Your task to perform on an android device: Open Amazon Image 0: 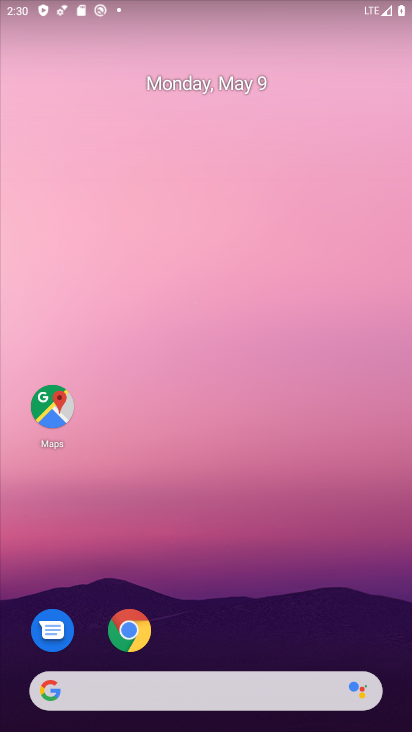
Step 0: drag from (322, 597) to (175, 125)
Your task to perform on an android device: Open Amazon Image 1: 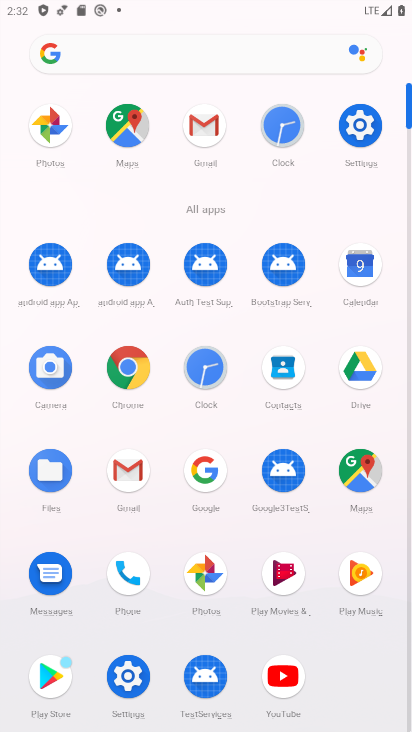
Step 1: click (136, 370)
Your task to perform on an android device: Open Amazon Image 2: 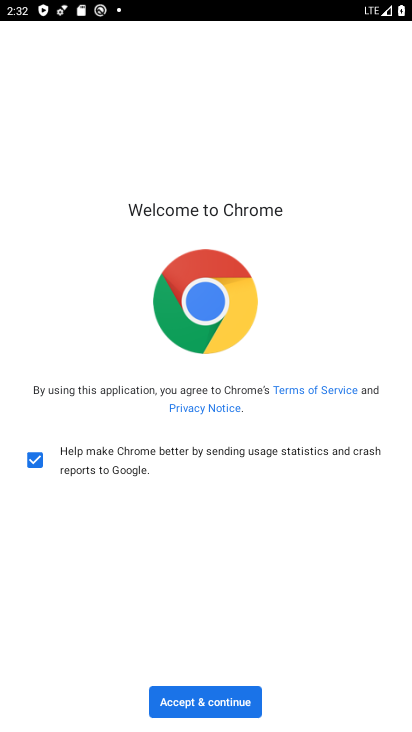
Step 2: click (220, 697)
Your task to perform on an android device: Open Amazon Image 3: 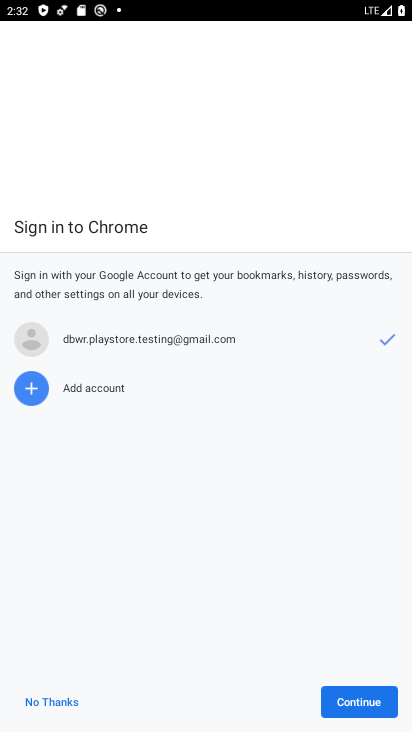
Step 3: click (363, 699)
Your task to perform on an android device: Open Amazon Image 4: 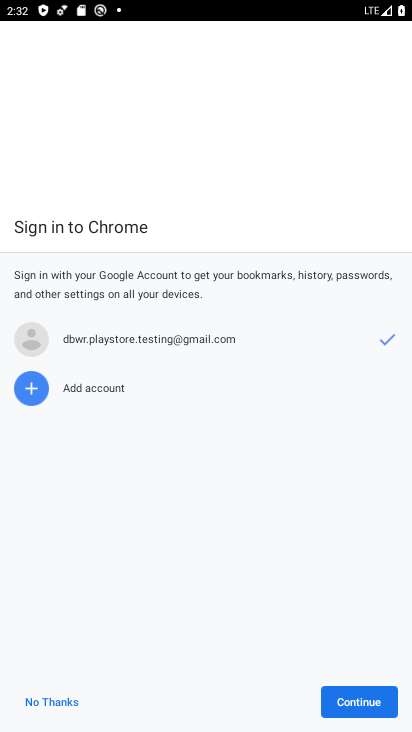
Step 4: click (363, 699)
Your task to perform on an android device: Open Amazon Image 5: 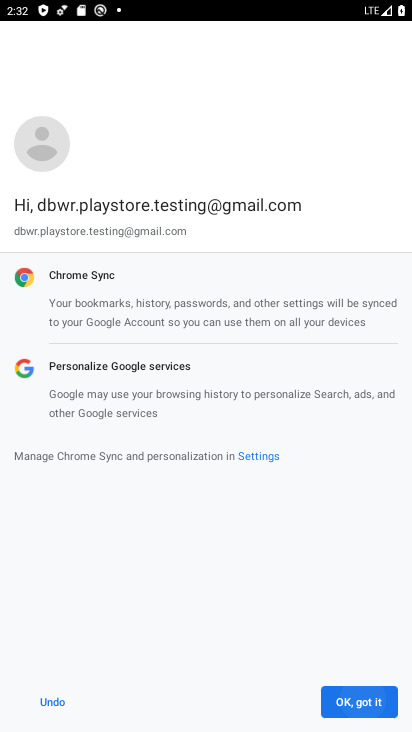
Step 5: click (363, 699)
Your task to perform on an android device: Open Amazon Image 6: 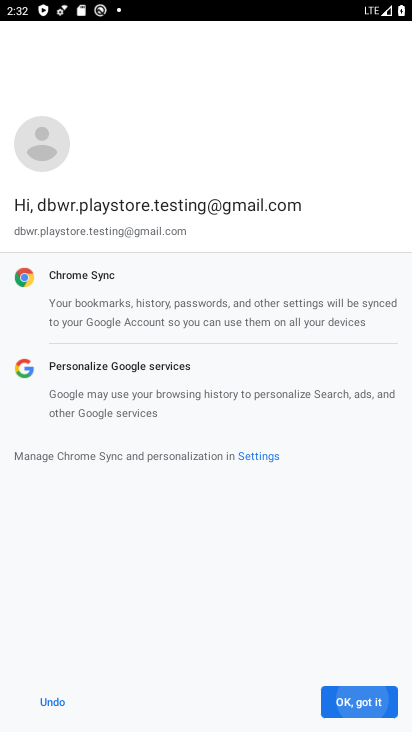
Step 6: click (363, 699)
Your task to perform on an android device: Open Amazon Image 7: 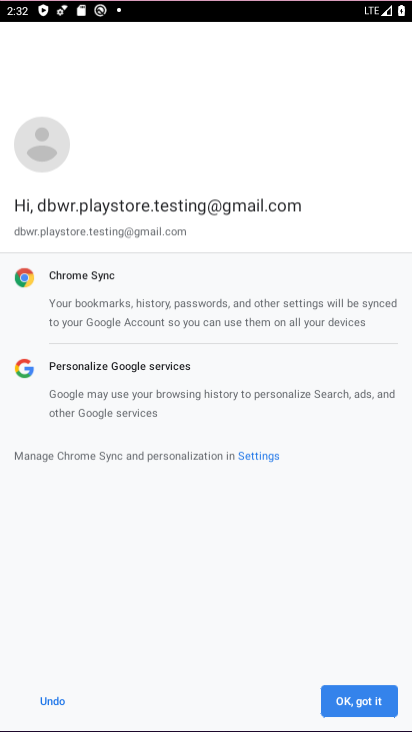
Step 7: click (363, 699)
Your task to perform on an android device: Open Amazon Image 8: 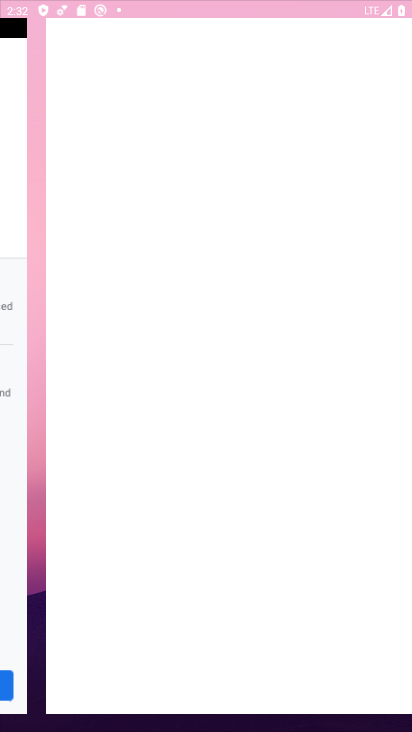
Step 8: click (363, 699)
Your task to perform on an android device: Open Amazon Image 9: 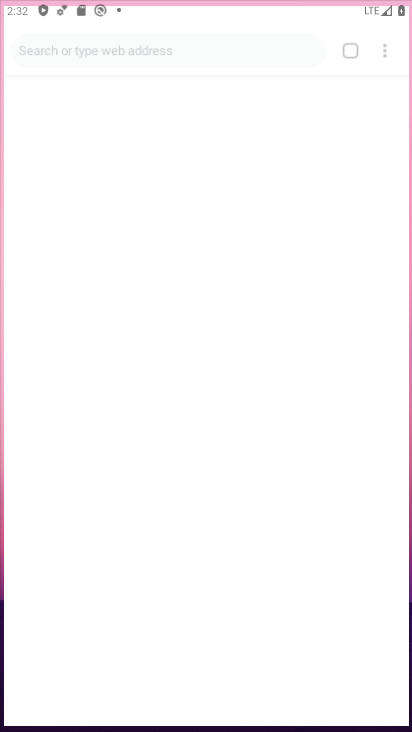
Step 9: click (363, 699)
Your task to perform on an android device: Open Amazon Image 10: 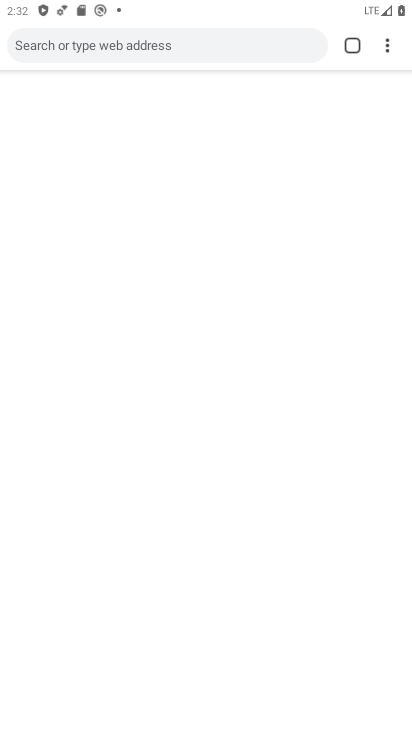
Step 10: click (363, 699)
Your task to perform on an android device: Open Amazon Image 11: 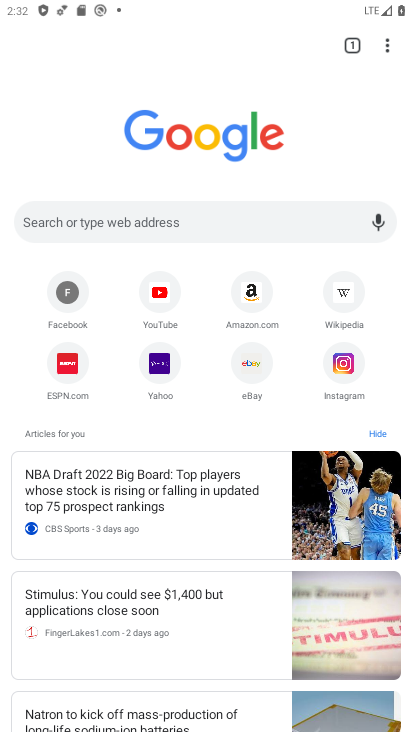
Step 11: click (262, 306)
Your task to perform on an android device: Open Amazon Image 12: 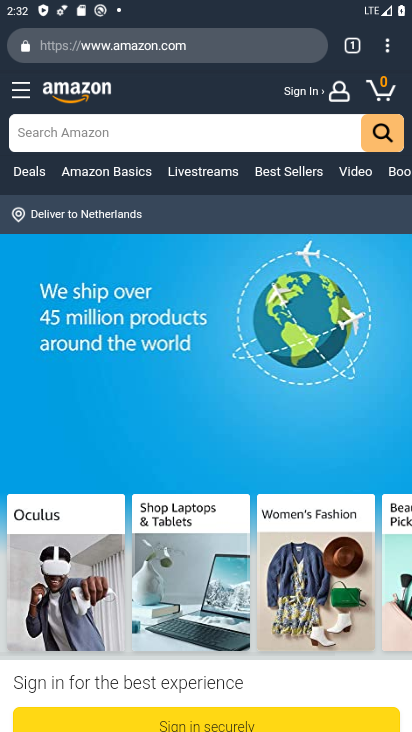
Step 12: task complete